Your task to perform on an android device: change alarm snooze length Image 0: 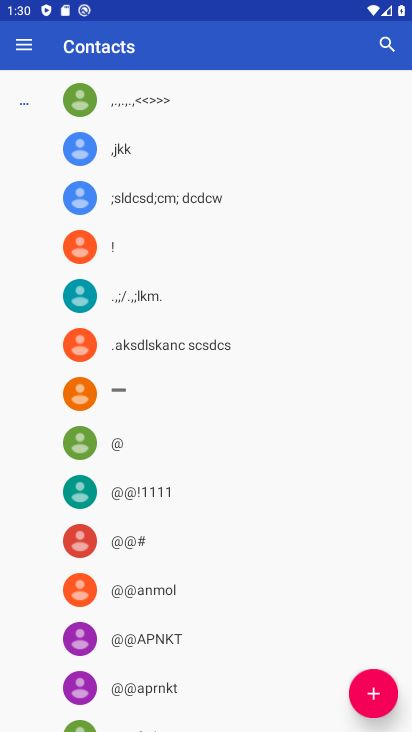
Step 0: press home button
Your task to perform on an android device: change alarm snooze length Image 1: 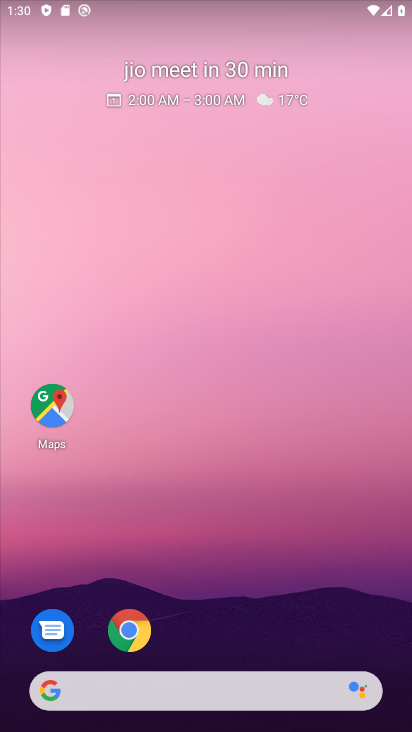
Step 1: drag from (249, 626) to (291, 47)
Your task to perform on an android device: change alarm snooze length Image 2: 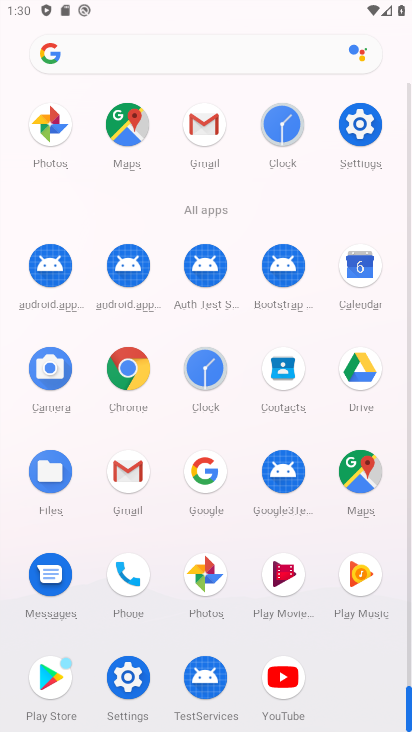
Step 2: click (217, 370)
Your task to perform on an android device: change alarm snooze length Image 3: 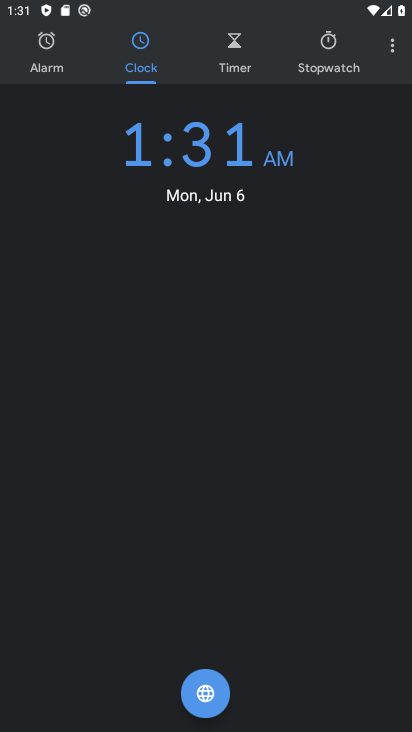
Step 3: click (390, 56)
Your task to perform on an android device: change alarm snooze length Image 4: 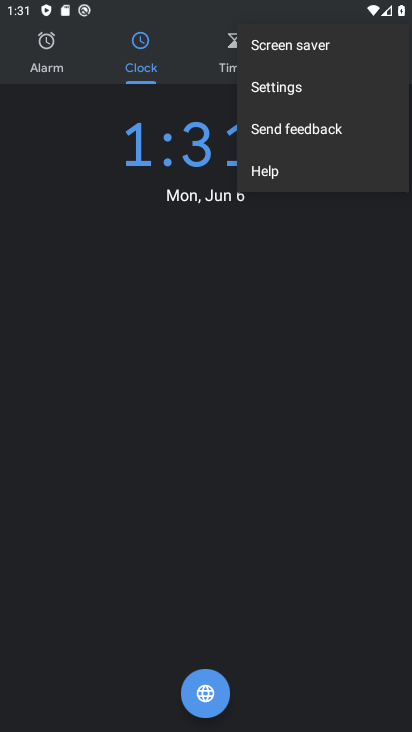
Step 4: click (288, 86)
Your task to perform on an android device: change alarm snooze length Image 5: 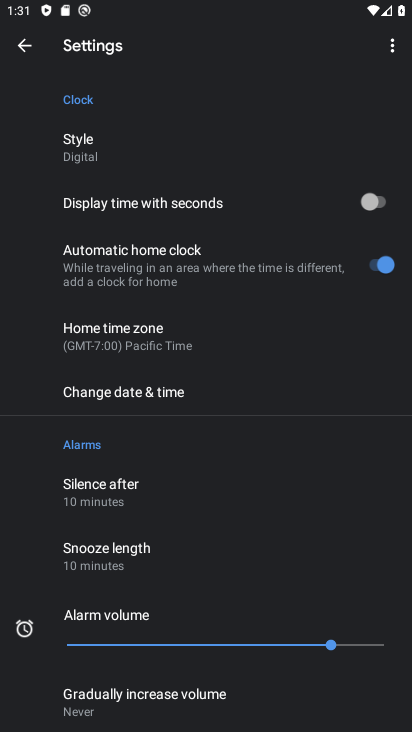
Step 5: click (80, 560)
Your task to perform on an android device: change alarm snooze length Image 6: 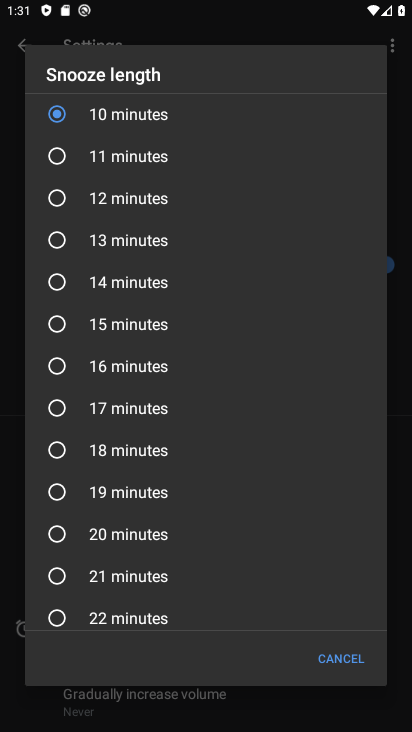
Step 6: click (101, 496)
Your task to perform on an android device: change alarm snooze length Image 7: 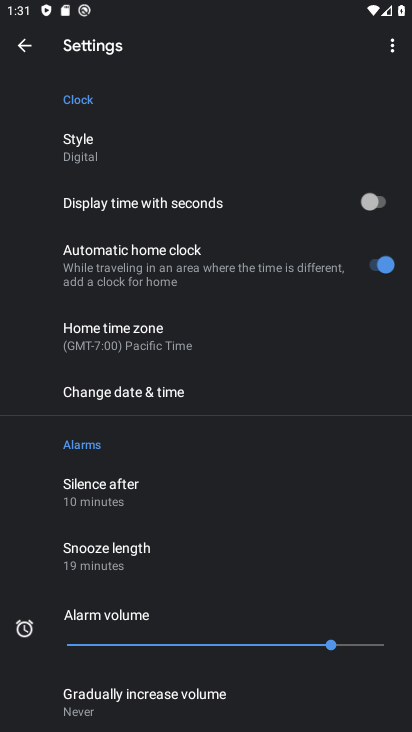
Step 7: task complete